Your task to perform on an android device: Open Maps and search for coffee Image 0: 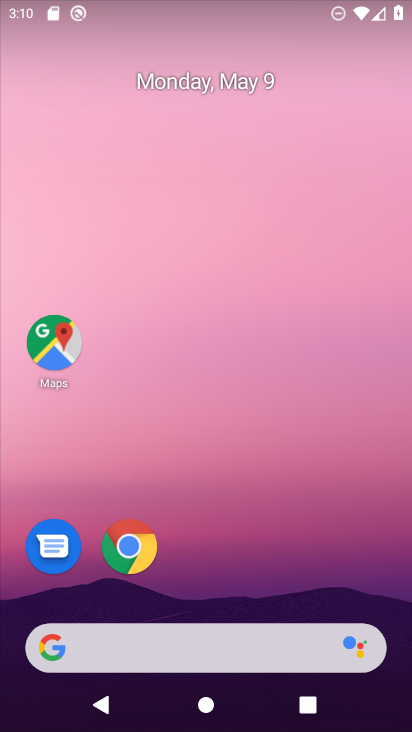
Step 0: click (40, 339)
Your task to perform on an android device: Open Maps and search for coffee Image 1: 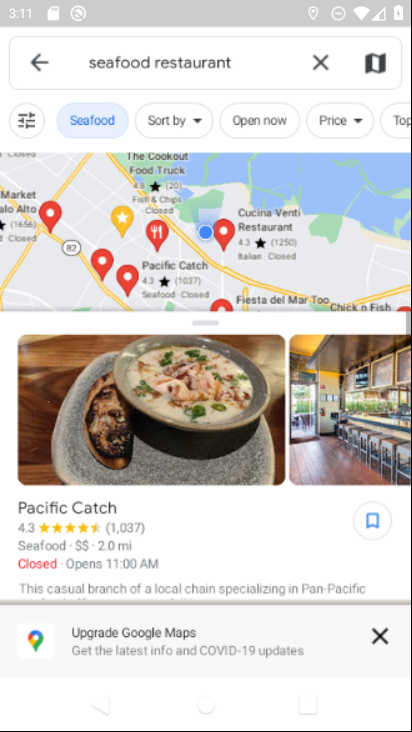
Step 1: click (322, 68)
Your task to perform on an android device: Open Maps and search for coffee Image 2: 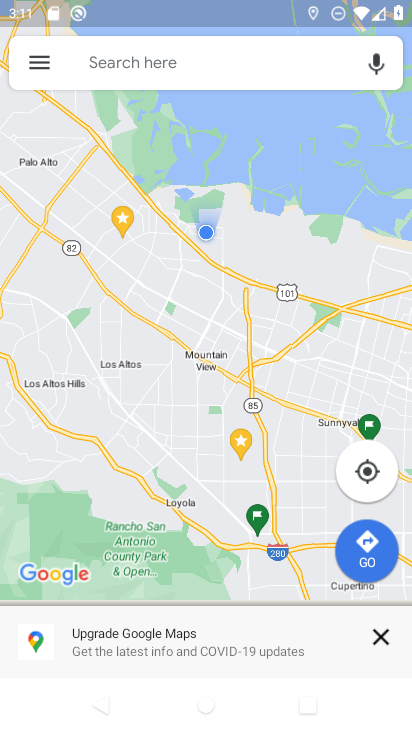
Step 2: type "coff"
Your task to perform on an android device: Open Maps and search for coffee Image 3: 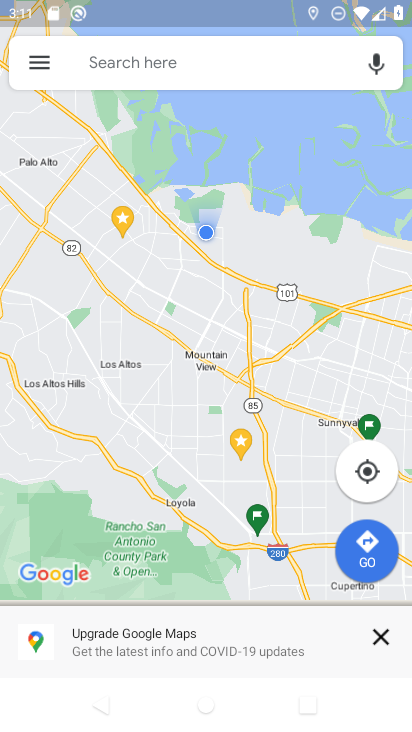
Step 3: click (134, 61)
Your task to perform on an android device: Open Maps and search for coffee Image 4: 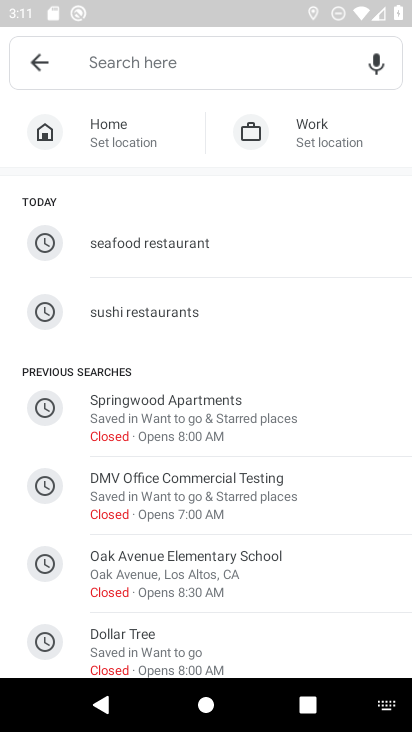
Step 4: type "coff"
Your task to perform on an android device: Open Maps and search for coffee Image 5: 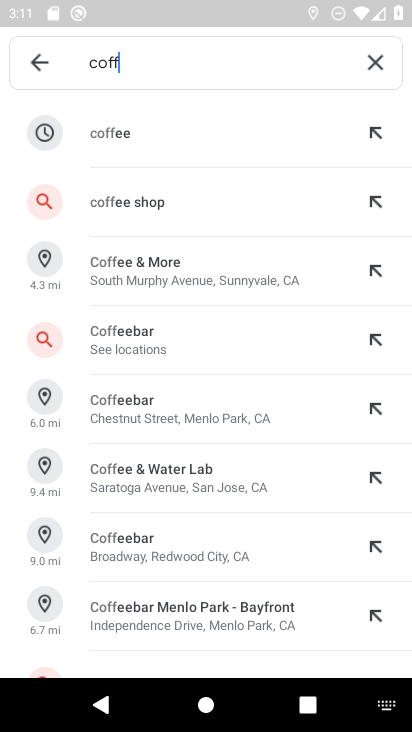
Step 5: click (164, 131)
Your task to perform on an android device: Open Maps and search for coffee Image 6: 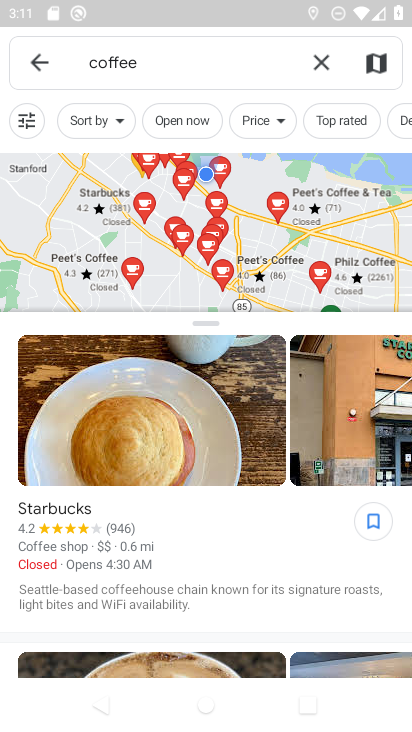
Step 6: task complete